Your task to perform on an android device: Open Chrome and go to settings Image 0: 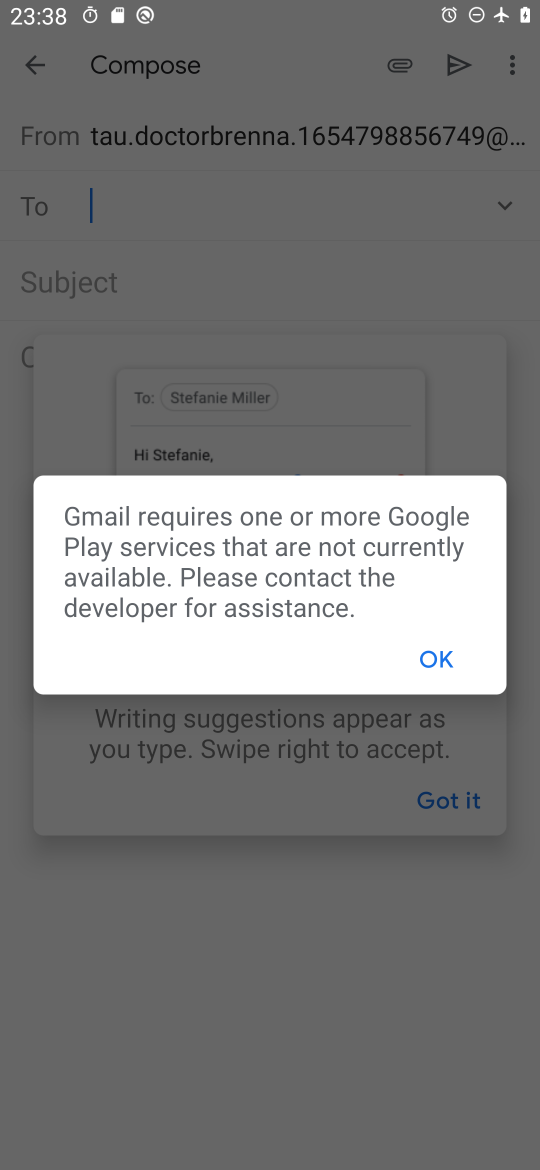
Step 0: press home button
Your task to perform on an android device: Open Chrome and go to settings Image 1: 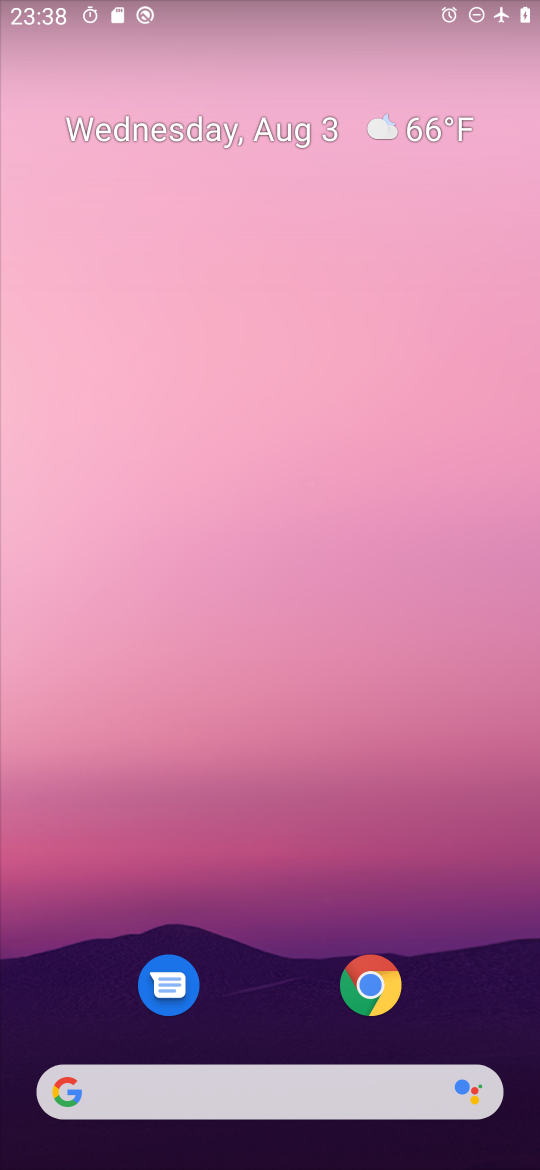
Step 1: click (372, 962)
Your task to perform on an android device: Open Chrome and go to settings Image 2: 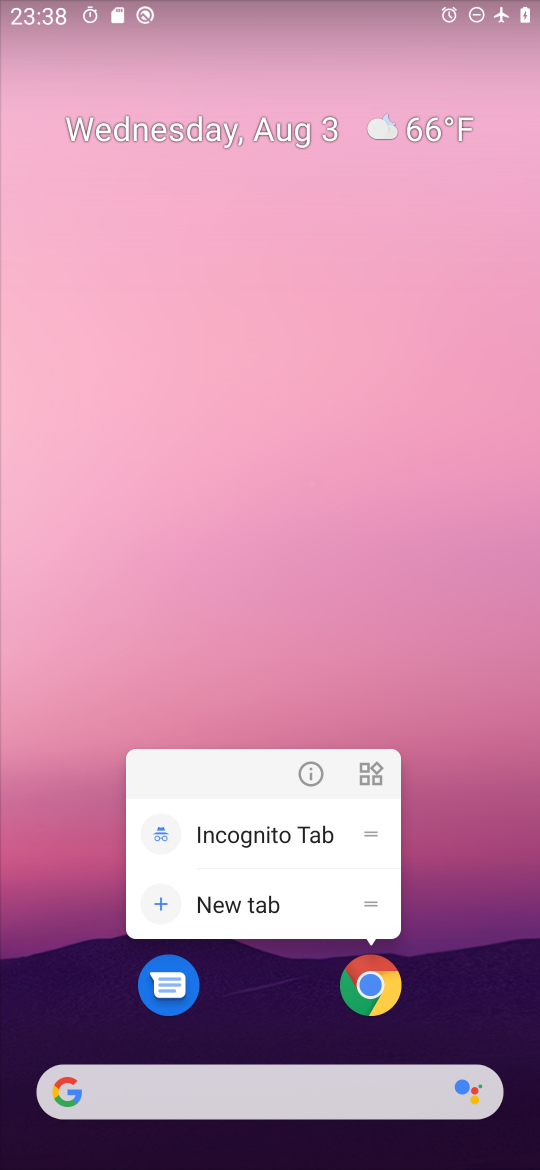
Step 2: click (376, 984)
Your task to perform on an android device: Open Chrome and go to settings Image 3: 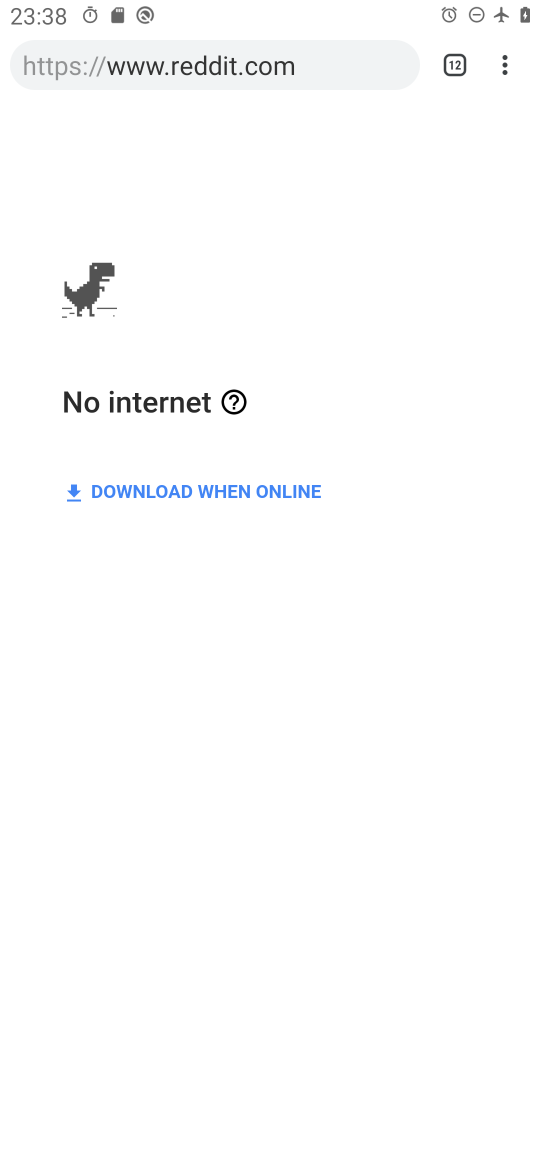
Step 3: click (494, 64)
Your task to perform on an android device: Open Chrome and go to settings Image 4: 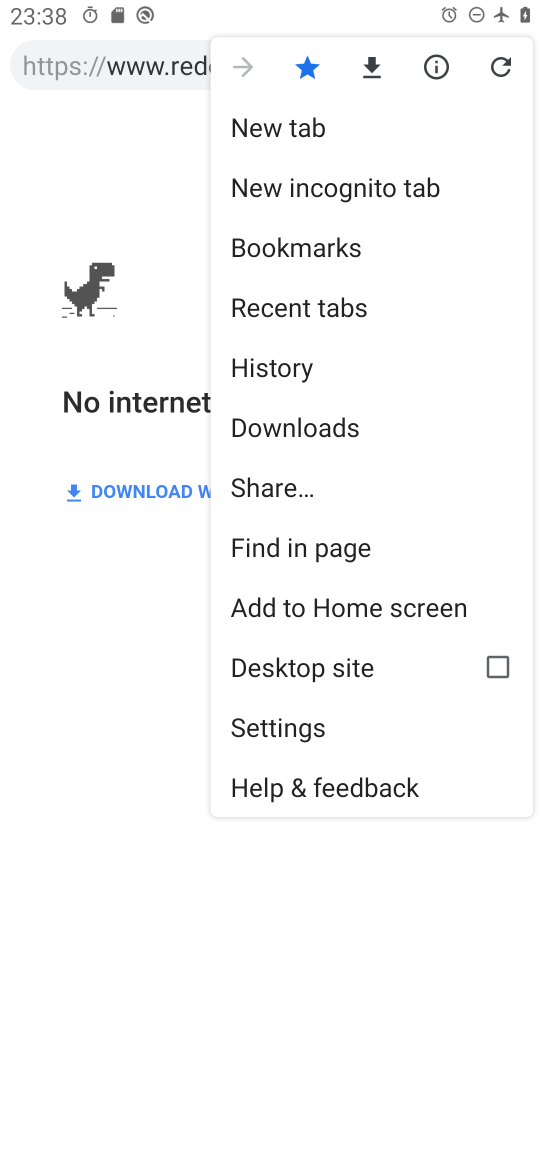
Step 4: click (342, 721)
Your task to perform on an android device: Open Chrome and go to settings Image 5: 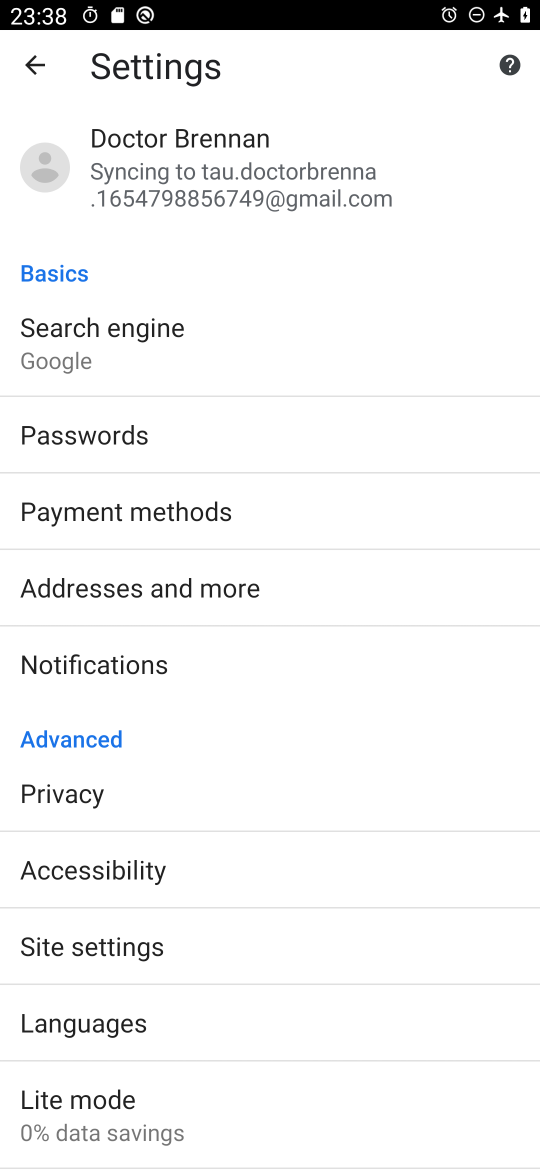
Step 5: task complete